Your task to perform on an android device: Is it going to rain tomorrow? Image 0: 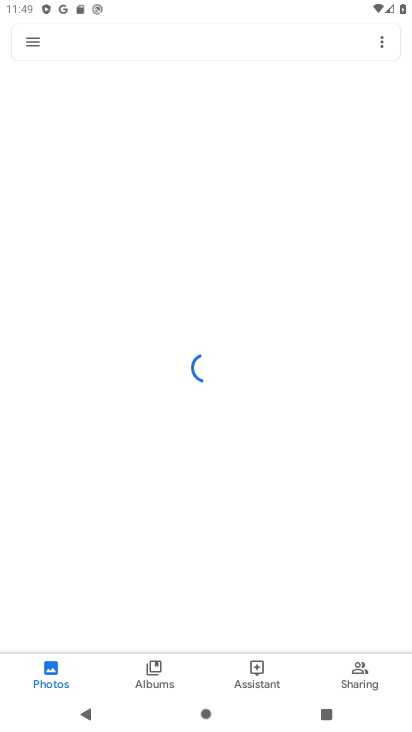
Step 0: press home button
Your task to perform on an android device: Is it going to rain tomorrow? Image 1: 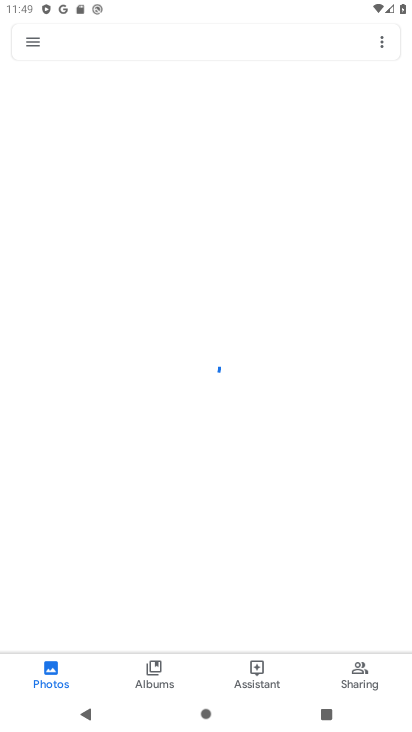
Step 1: press home button
Your task to perform on an android device: Is it going to rain tomorrow? Image 2: 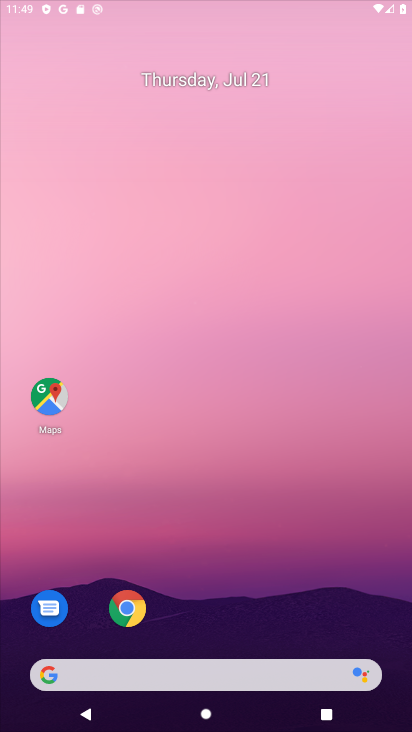
Step 2: press home button
Your task to perform on an android device: Is it going to rain tomorrow? Image 3: 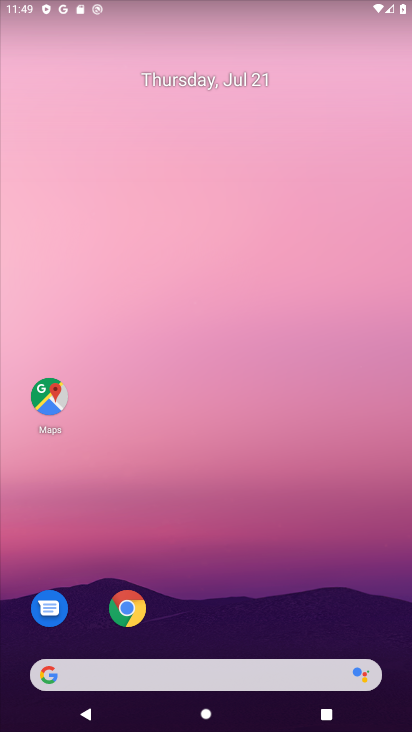
Step 3: press home button
Your task to perform on an android device: Is it going to rain tomorrow? Image 4: 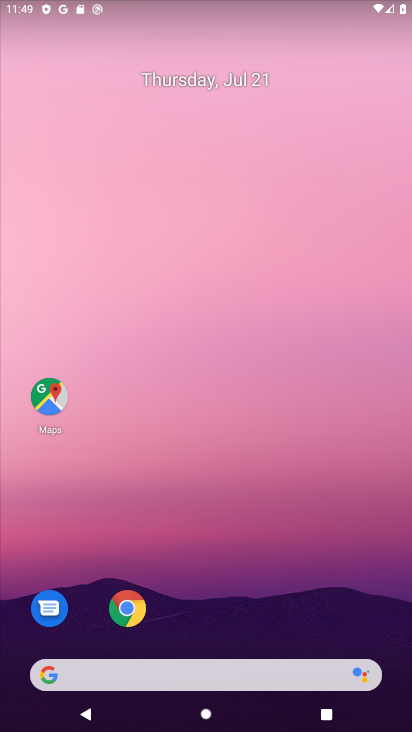
Step 4: click (191, 667)
Your task to perform on an android device: Is it going to rain tomorrow? Image 5: 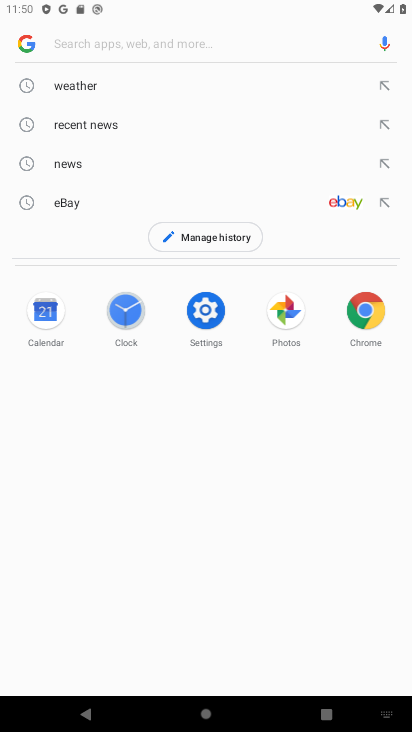
Step 5: type "Is it going to rain tomorrow?"
Your task to perform on an android device: Is it going to rain tomorrow? Image 6: 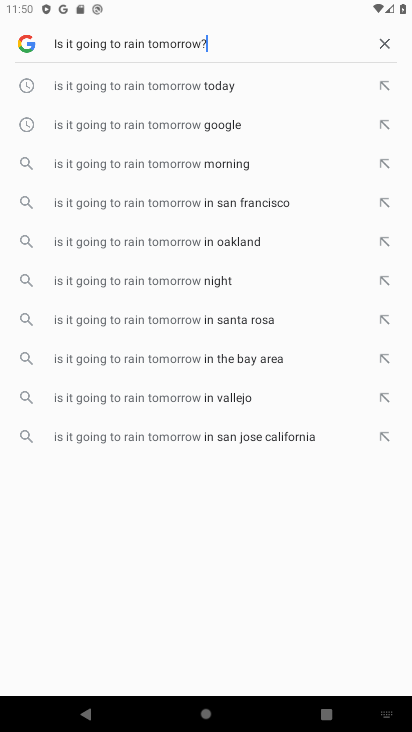
Step 6: click (167, 124)
Your task to perform on an android device: Is it going to rain tomorrow? Image 7: 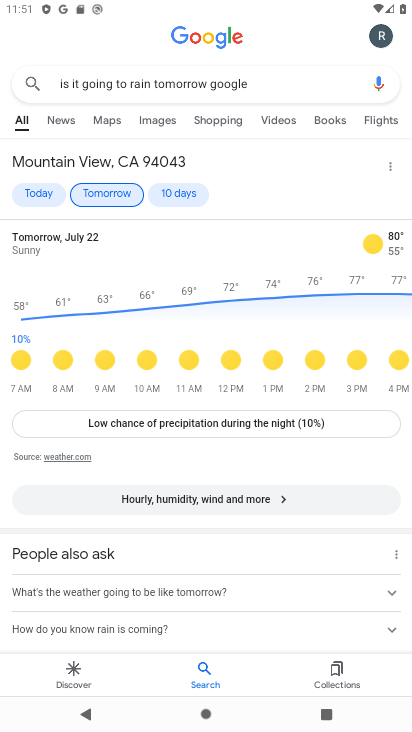
Step 7: task complete